Your task to perform on an android device: read, delete, or share a saved page in the chrome app Image 0: 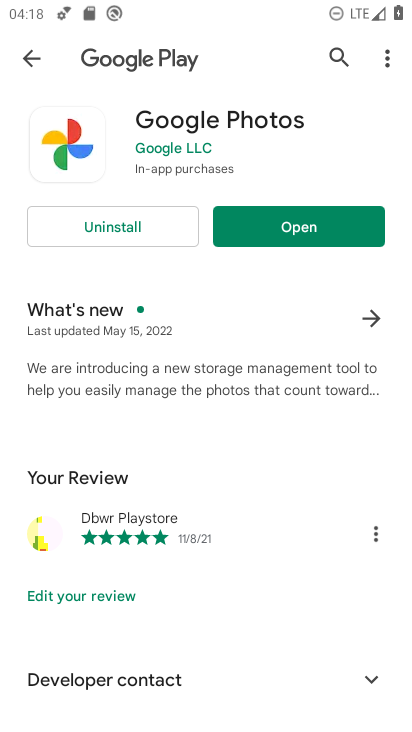
Step 0: press home button
Your task to perform on an android device: read, delete, or share a saved page in the chrome app Image 1: 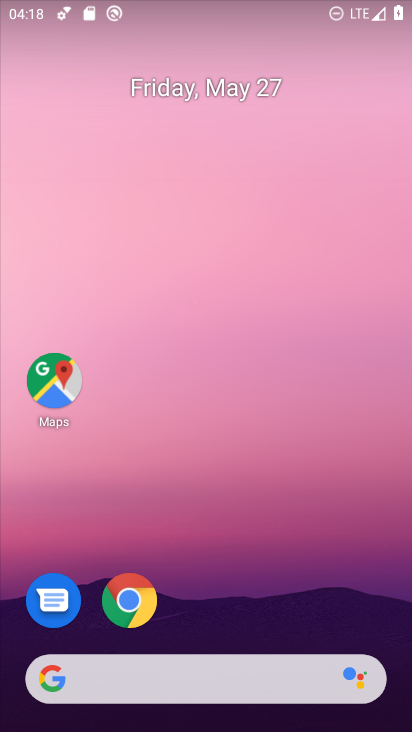
Step 1: click (132, 597)
Your task to perform on an android device: read, delete, or share a saved page in the chrome app Image 2: 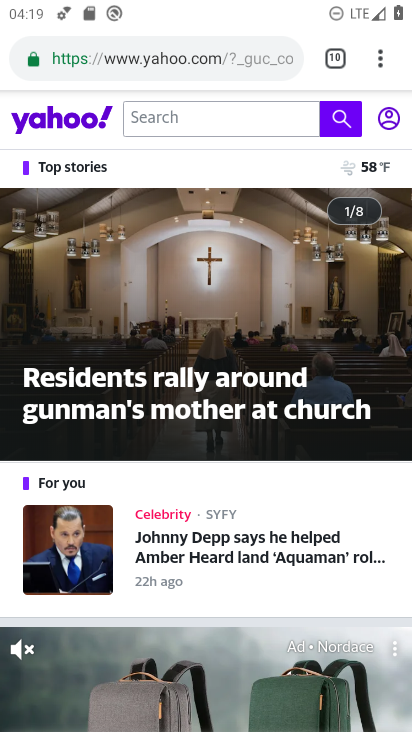
Step 2: click (377, 63)
Your task to perform on an android device: read, delete, or share a saved page in the chrome app Image 3: 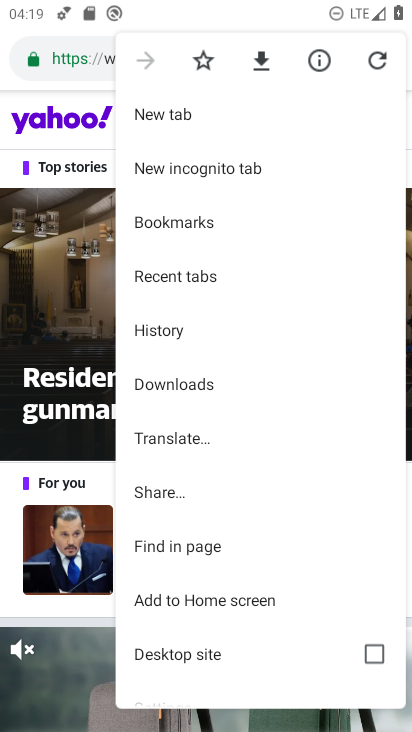
Step 3: click (167, 384)
Your task to perform on an android device: read, delete, or share a saved page in the chrome app Image 4: 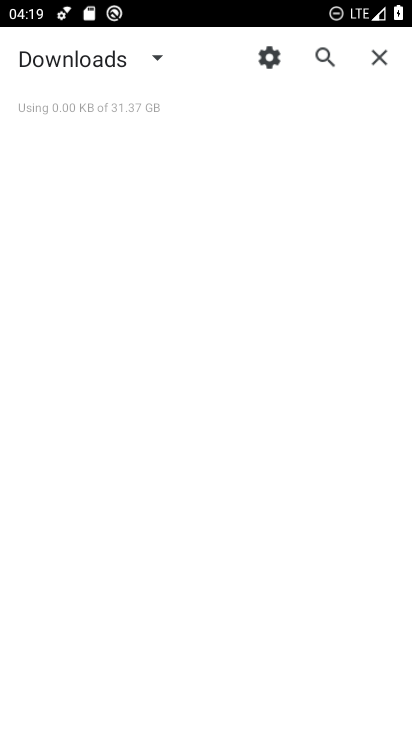
Step 4: click (158, 56)
Your task to perform on an android device: read, delete, or share a saved page in the chrome app Image 5: 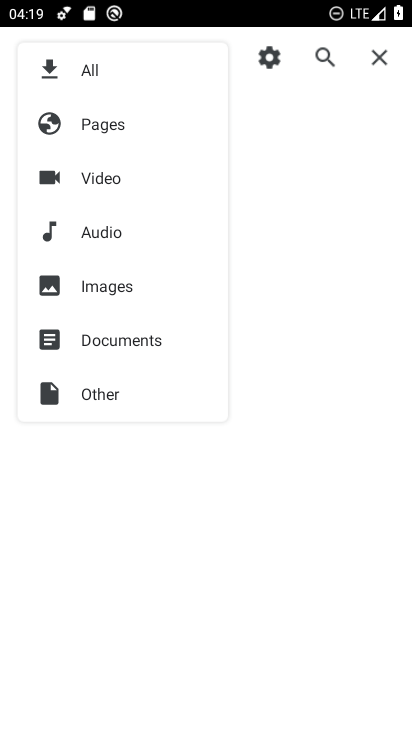
Step 5: click (113, 126)
Your task to perform on an android device: read, delete, or share a saved page in the chrome app Image 6: 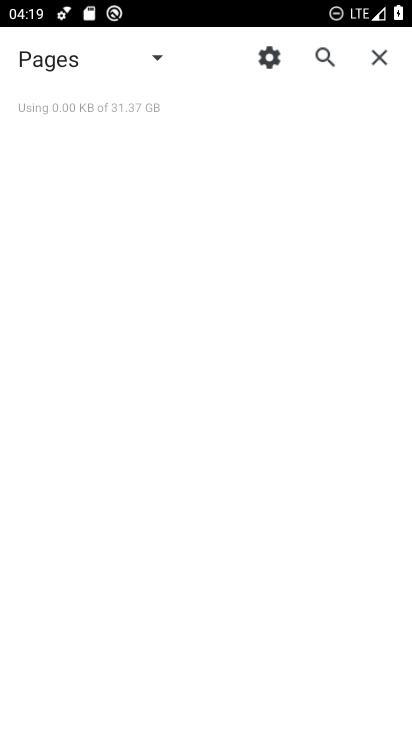
Step 6: task complete